Your task to perform on an android device: turn off translation in the chrome app Image 0: 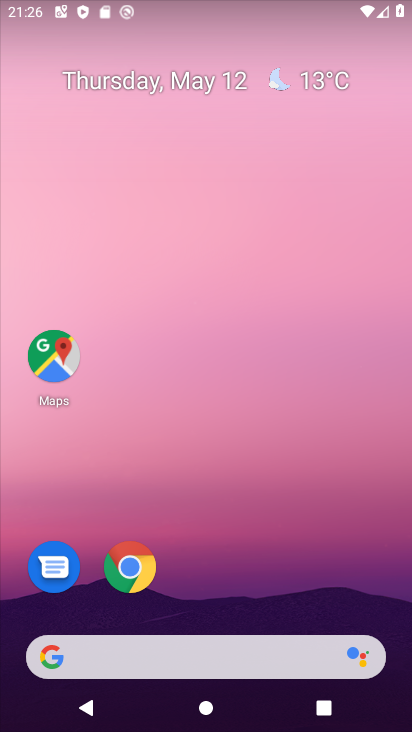
Step 0: click (129, 563)
Your task to perform on an android device: turn off translation in the chrome app Image 1: 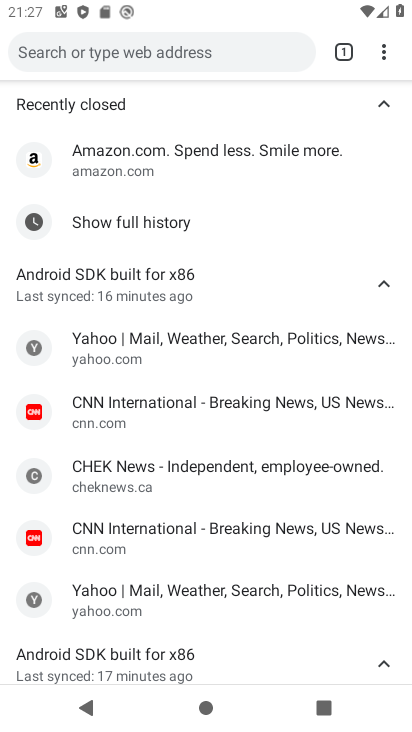
Step 1: click (390, 40)
Your task to perform on an android device: turn off translation in the chrome app Image 2: 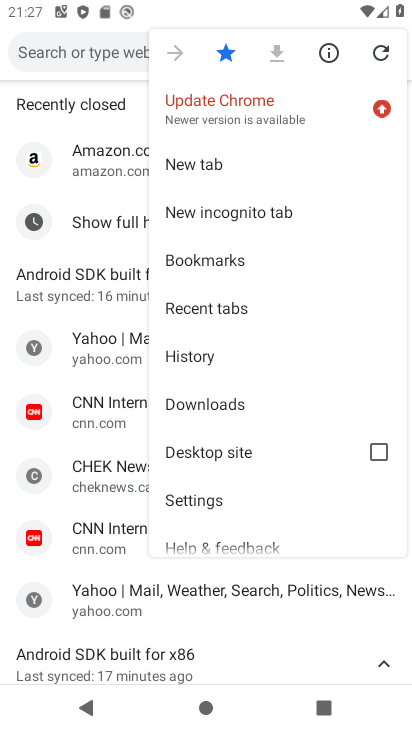
Step 2: click (232, 500)
Your task to perform on an android device: turn off translation in the chrome app Image 3: 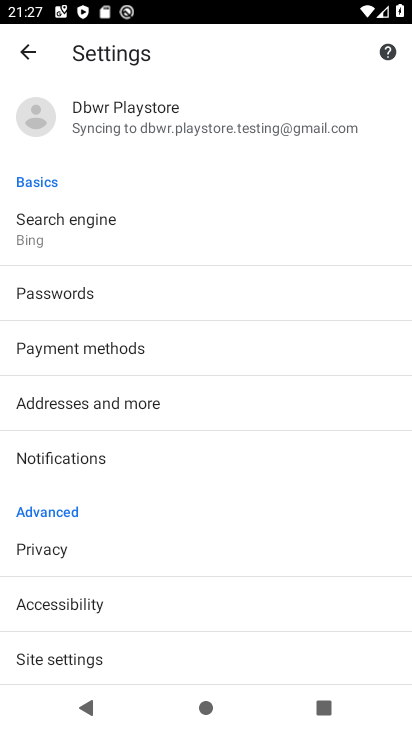
Step 3: drag from (168, 638) to (188, 161)
Your task to perform on an android device: turn off translation in the chrome app Image 4: 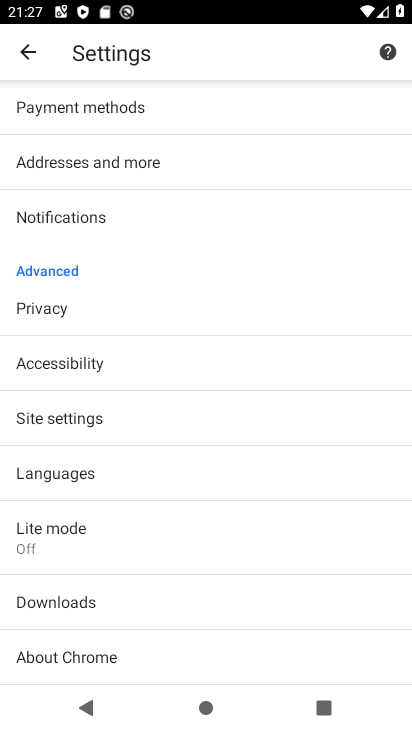
Step 4: click (106, 471)
Your task to perform on an android device: turn off translation in the chrome app Image 5: 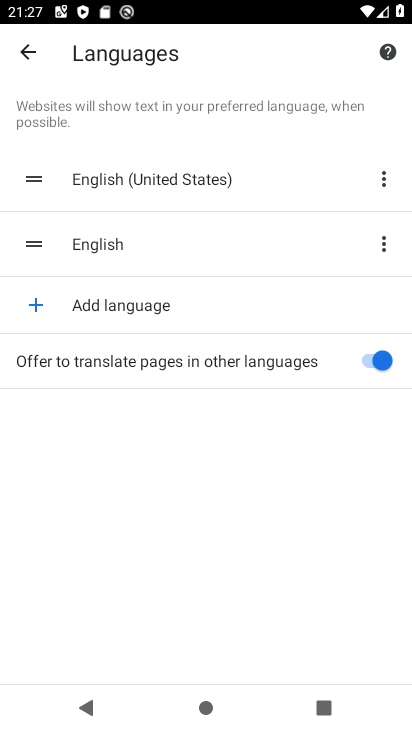
Step 5: click (368, 351)
Your task to perform on an android device: turn off translation in the chrome app Image 6: 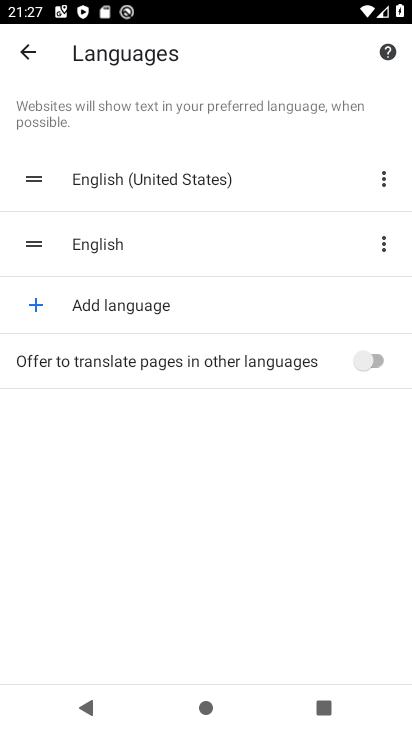
Step 6: task complete